Your task to perform on an android device: What is the recent news? Image 0: 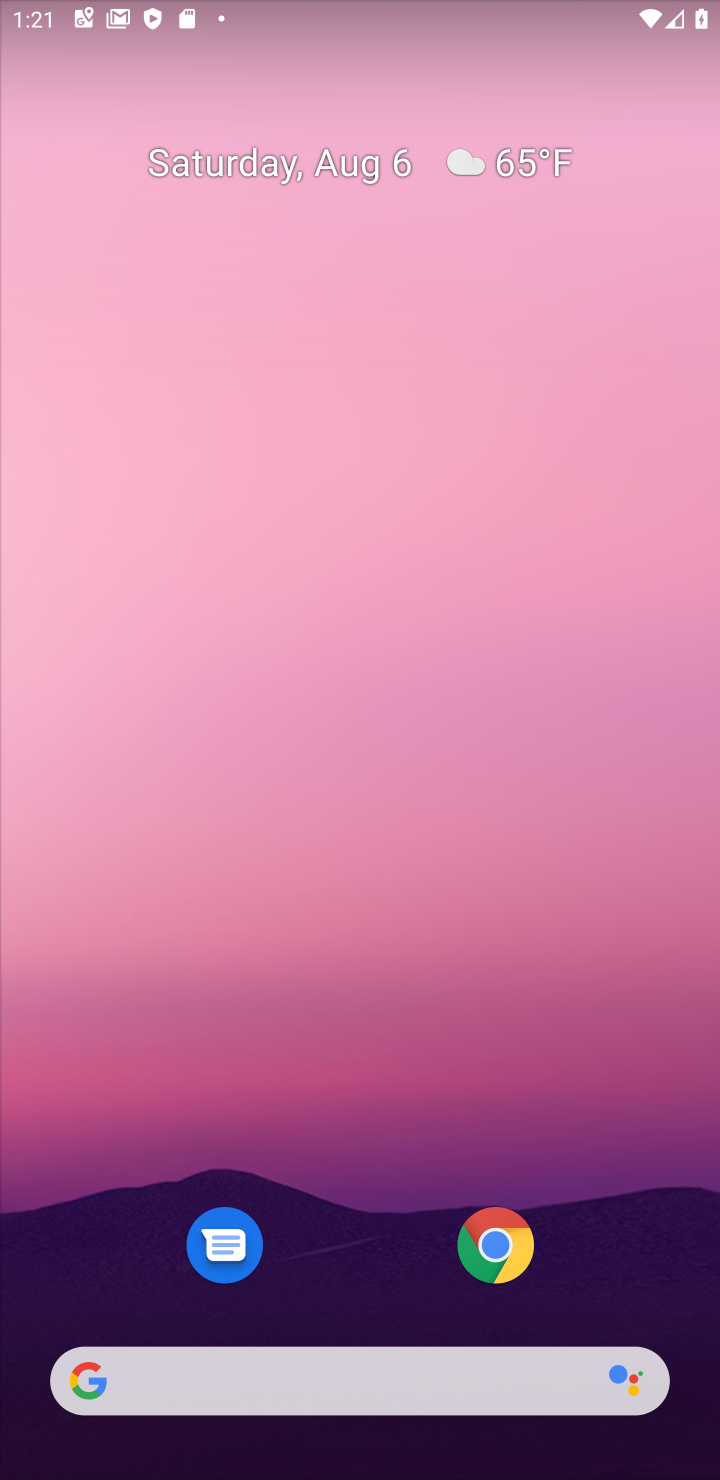
Step 0: click (362, 1406)
Your task to perform on an android device: What is the recent news? Image 1: 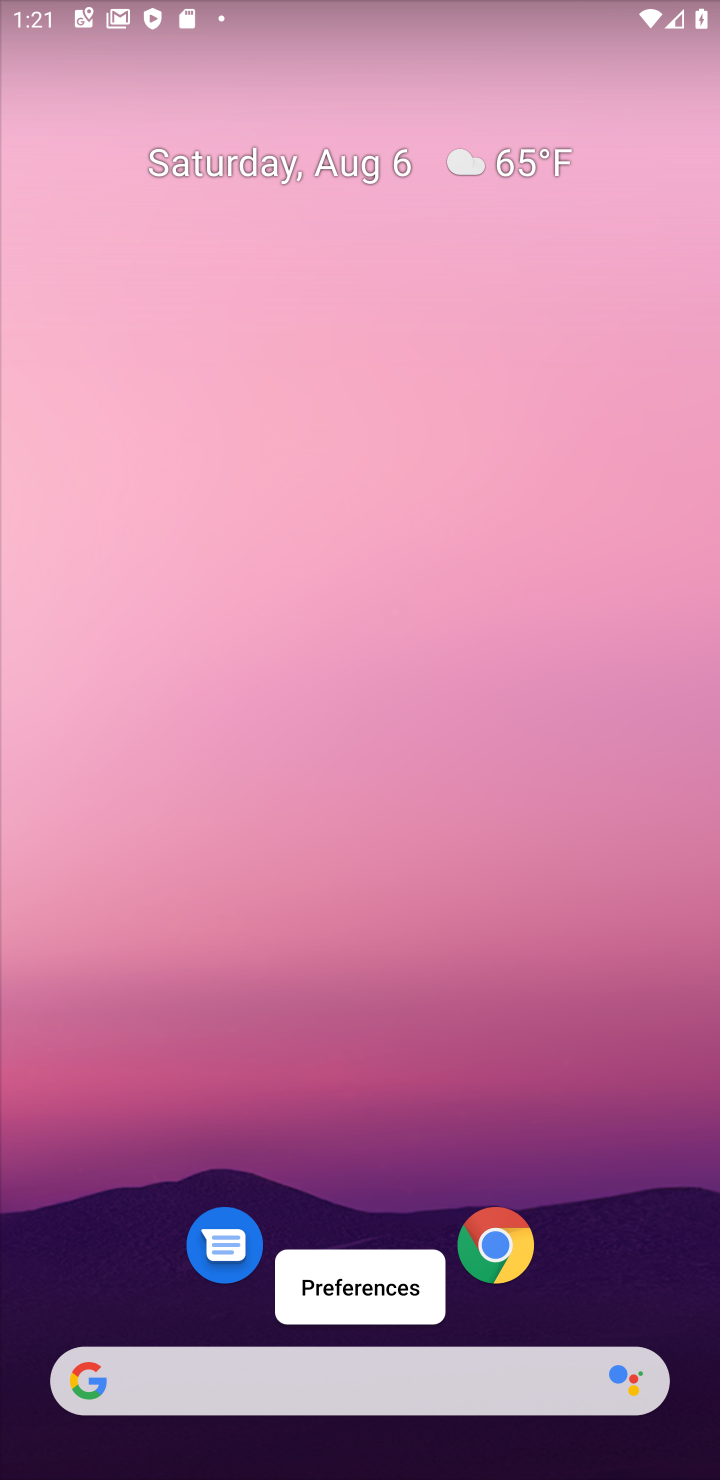
Step 1: click (295, 1388)
Your task to perform on an android device: What is the recent news? Image 2: 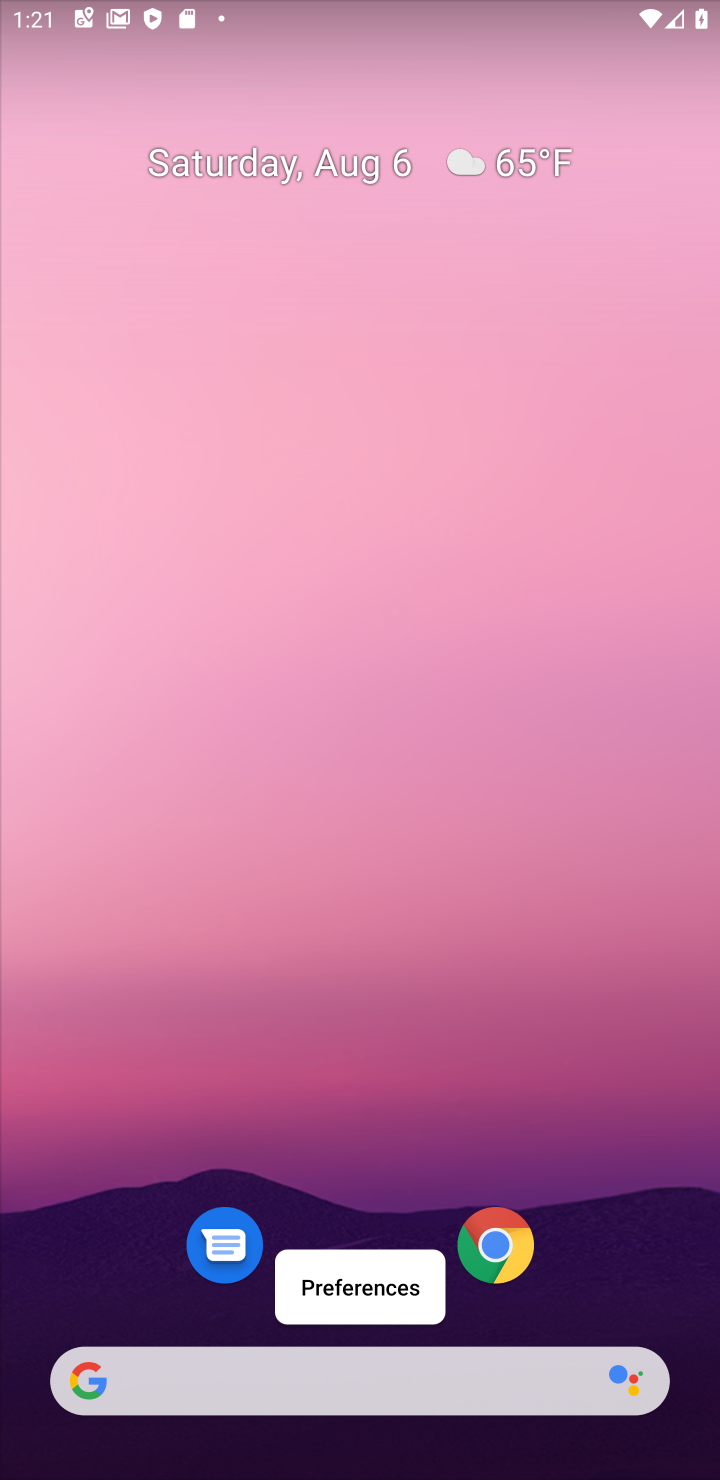
Step 2: click (513, 1258)
Your task to perform on an android device: What is the recent news? Image 3: 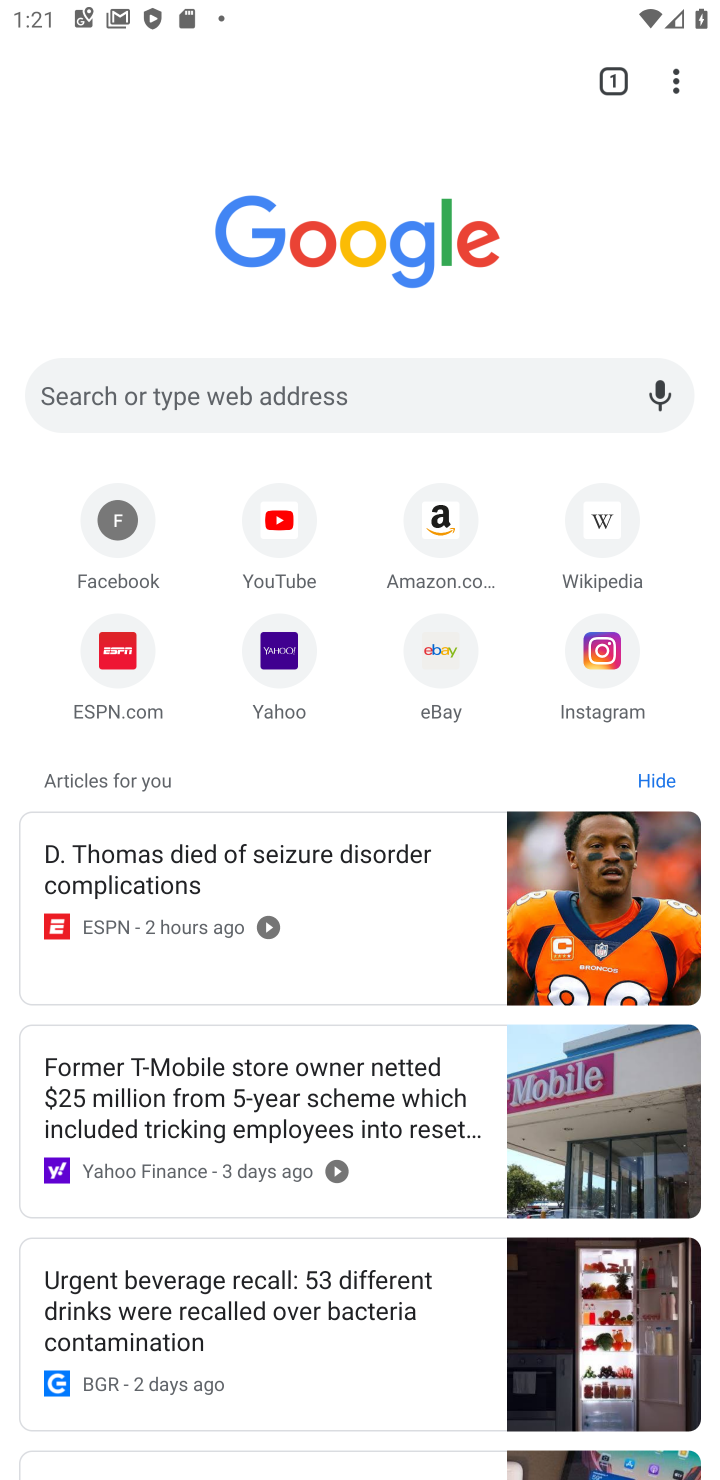
Step 3: click (309, 391)
Your task to perform on an android device: What is the recent news? Image 4: 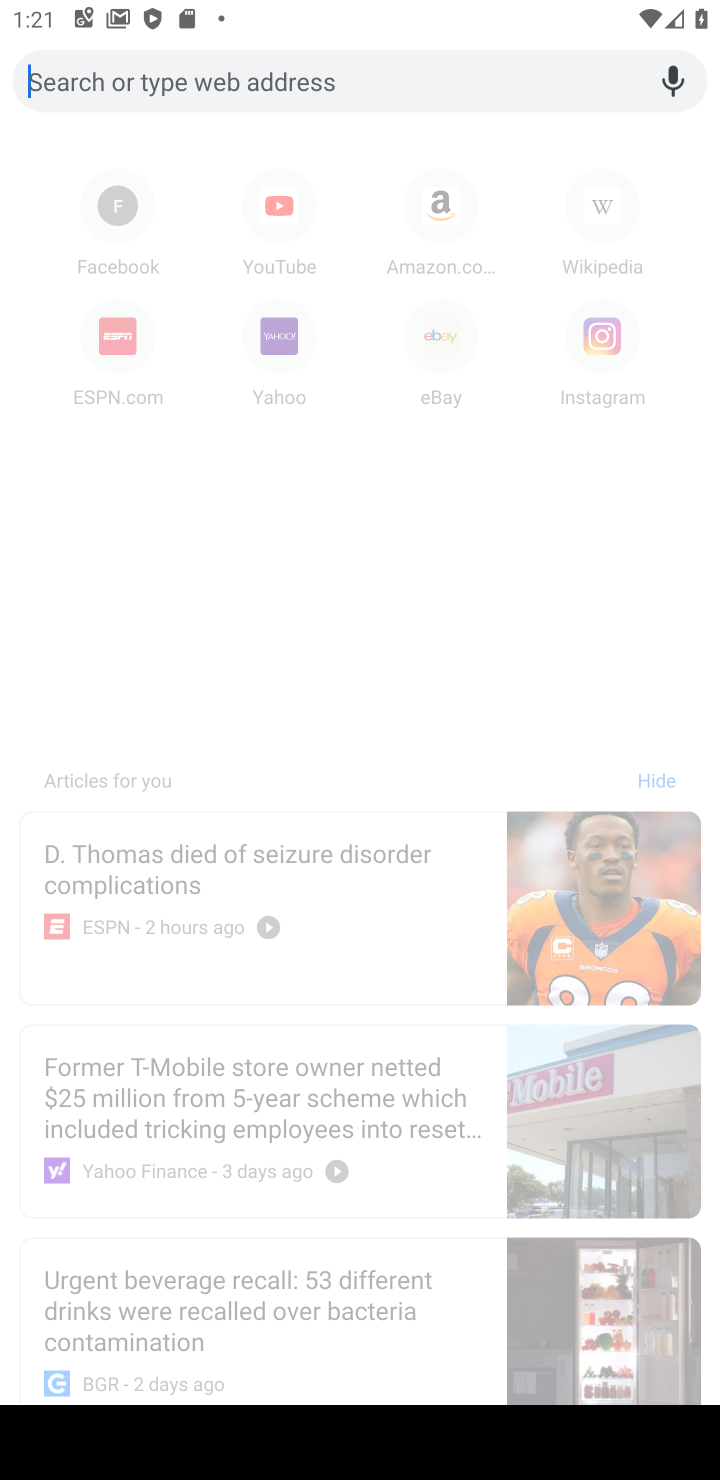
Step 4: type "What is the recent news?"
Your task to perform on an android device: What is the recent news? Image 5: 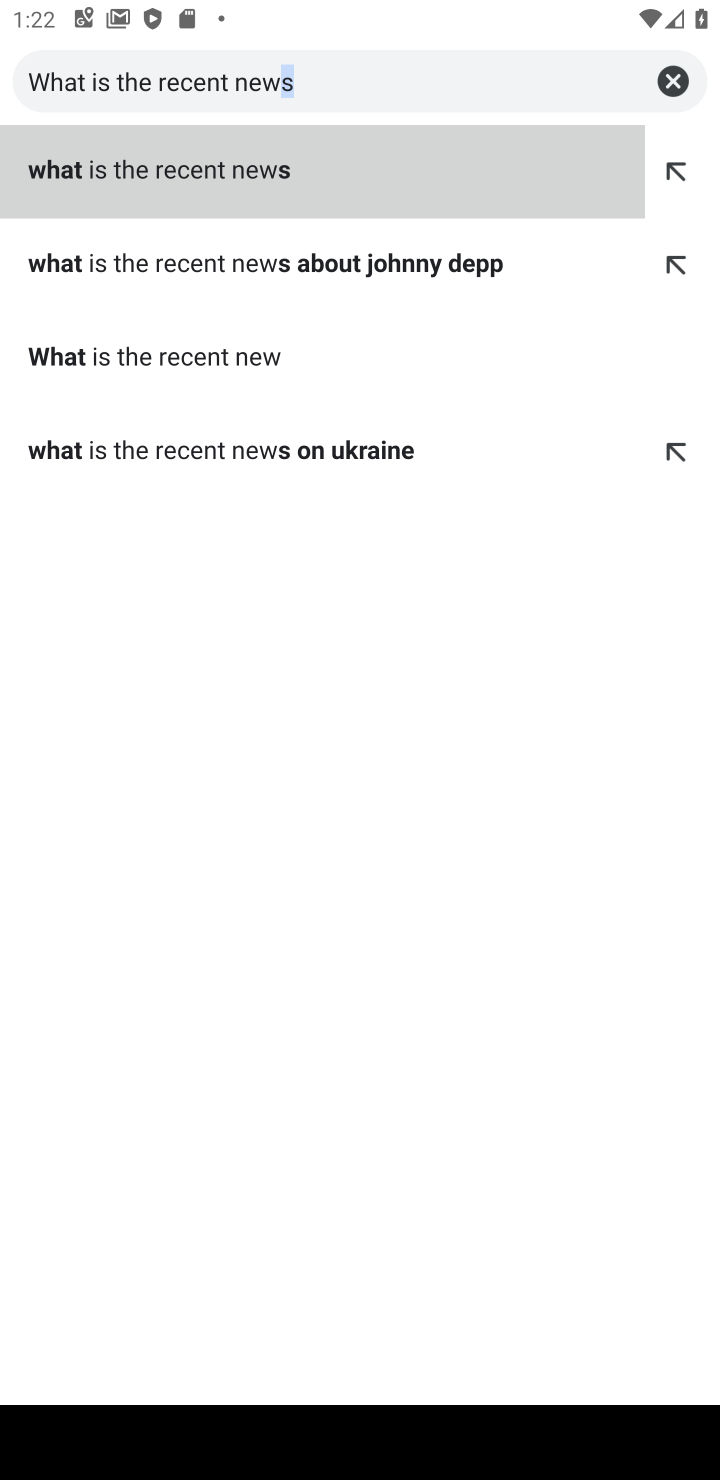
Step 5: press enter
Your task to perform on an android device: What is the recent news? Image 6: 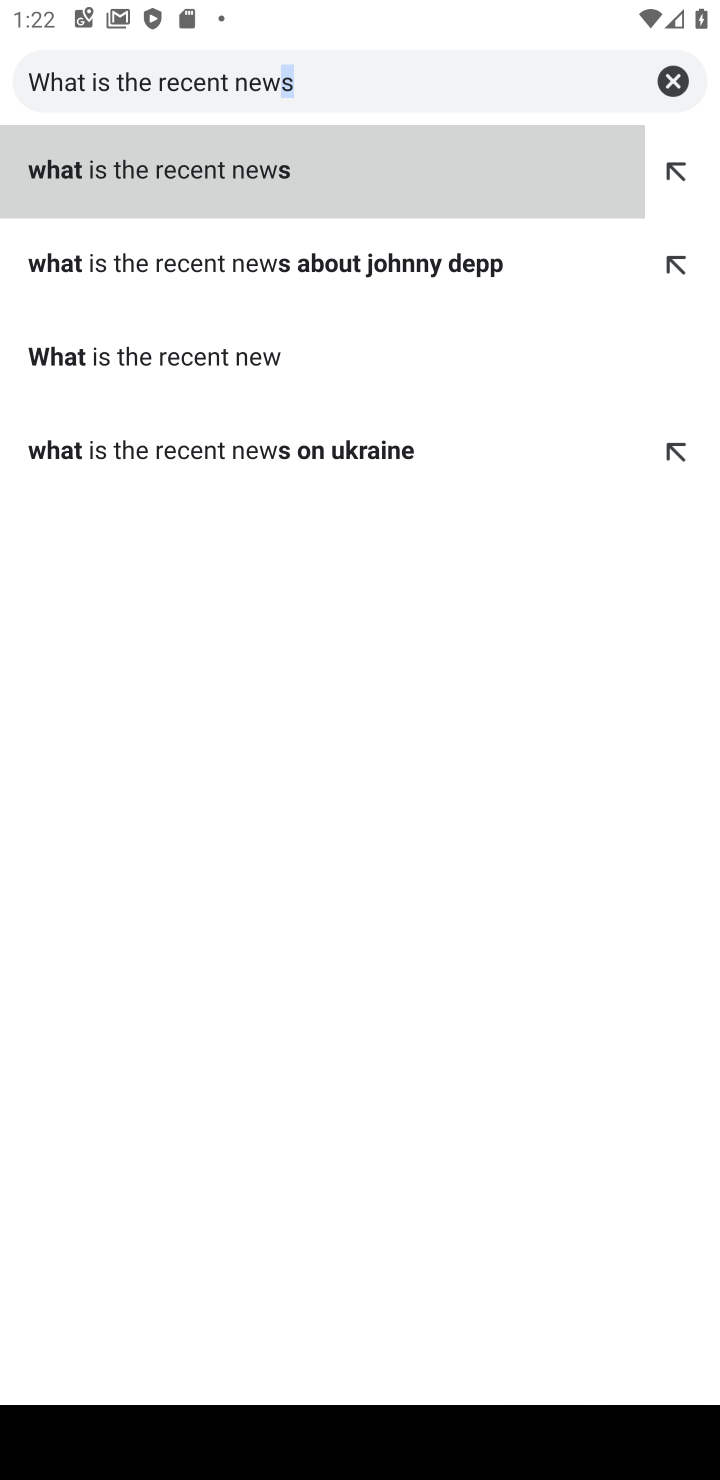
Step 6: type ""
Your task to perform on an android device: What is the recent news? Image 7: 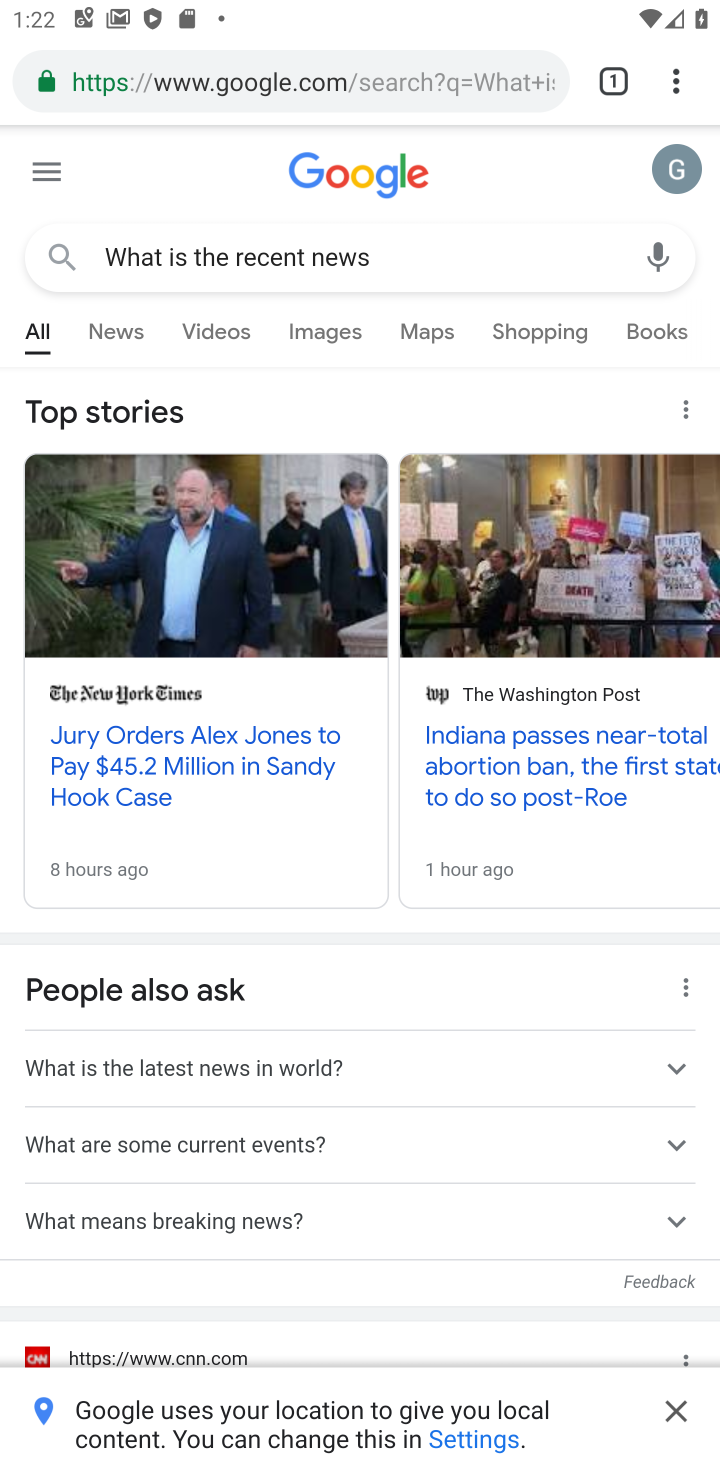
Step 7: task complete